Your task to perform on an android device: turn notification dots on Image 0: 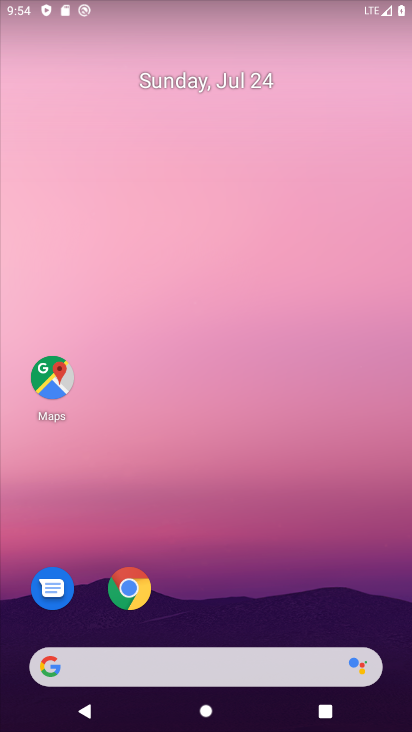
Step 0: drag from (281, 706) to (276, 7)
Your task to perform on an android device: turn notification dots on Image 1: 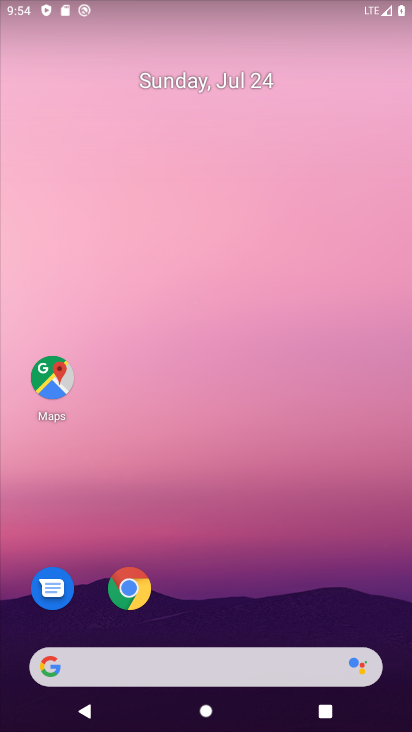
Step 1: drag from (256, 708) to (281, 166)
Your task to perform on an android device: turn notification dots on Image 2: 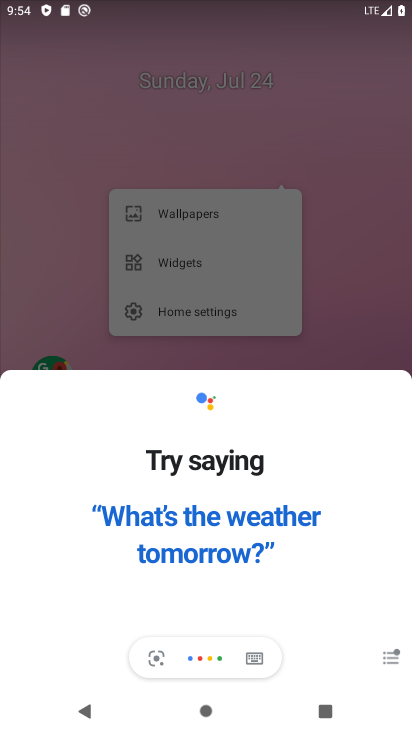
Step 2: press home button
Your task to perform on an android device: turn notification dots on Image 3: 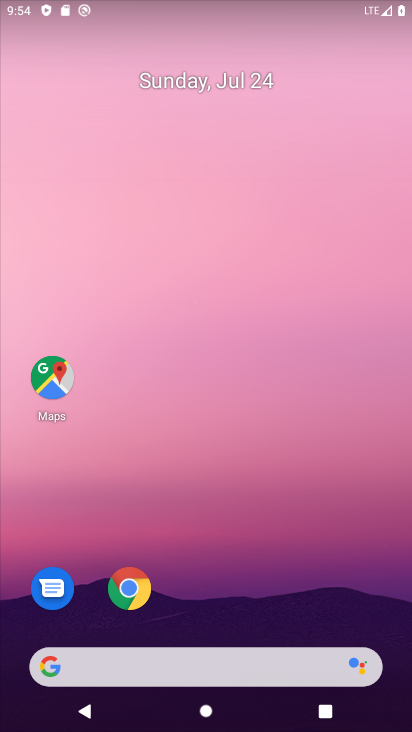
Step 3: drag from (134, 698) to (250, 36)
Your task to perform on an android device: turn notification dots on Image 4: 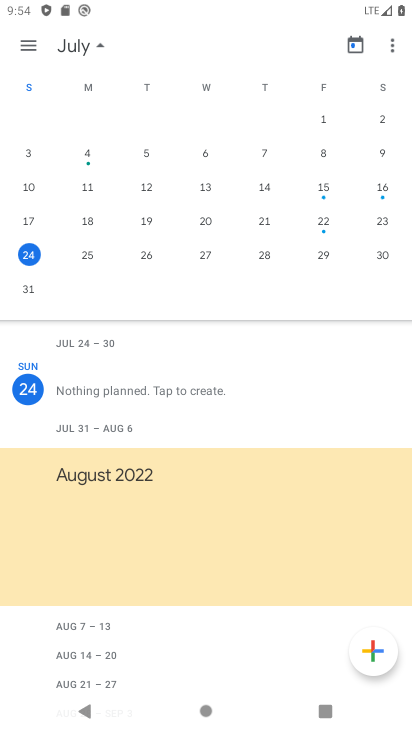
Step 4: press home button
Your task to perform on an android device: turn notification dots on Image 5: 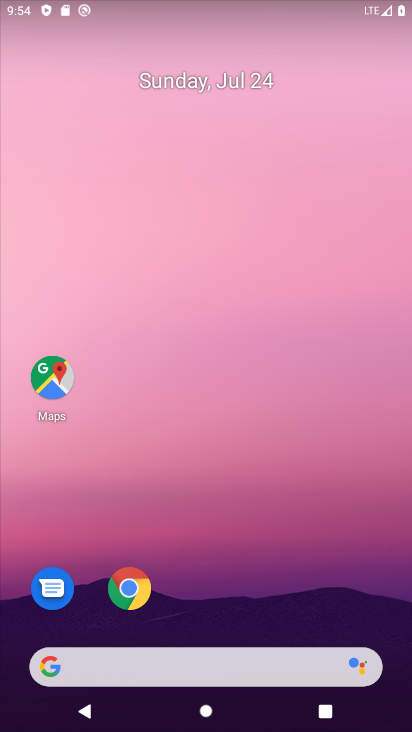
Step 5: drag from (254, 693) to (326, 12)
Your task to perform on an android device: turn notification dots on Image 6: 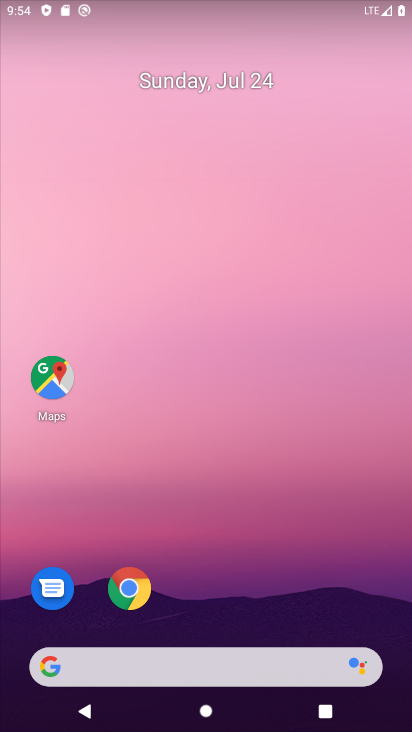
Step 6: drag from (257, 698) to (285, 48)
Your task to perform on an android device: turn notification dots on Image 7: 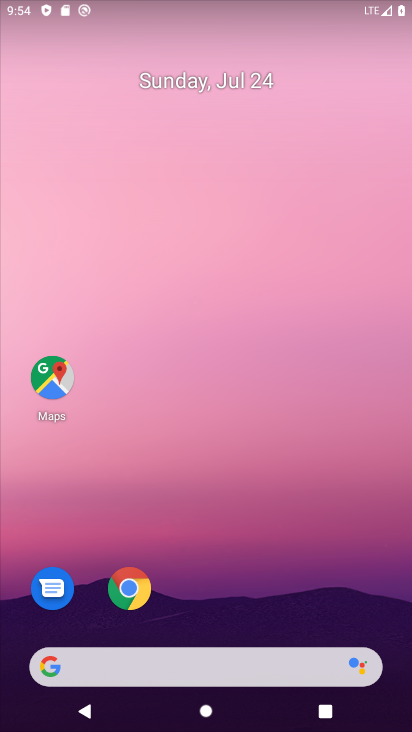
Step 7: drag from (140, 696) to (202, 61)
Your task to perform on an android device: turn notification dots on Image 8: 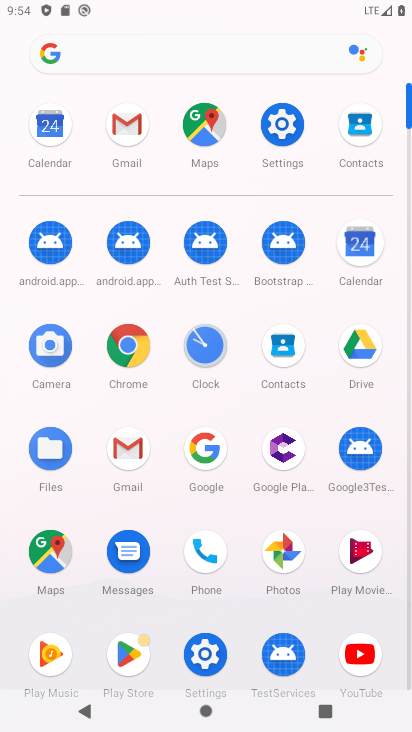
Step 8: click (275, 132)
Your task to perform on an android device: turn notification dots on Image 9: 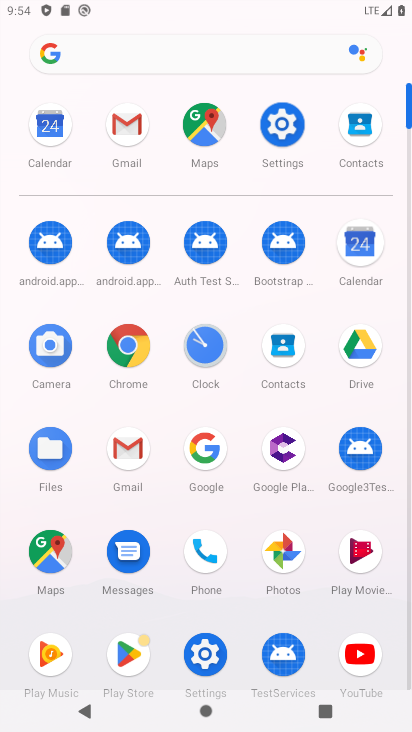
Step 9: click (275, 132)
Your task to perform on an android device: turn notification dots on Image 10: 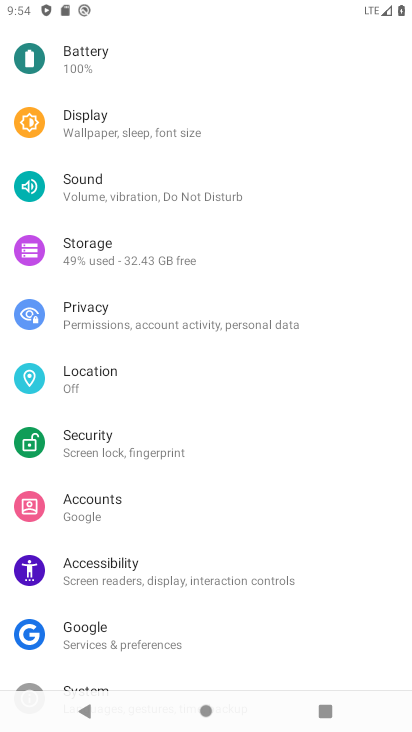
Step 10: drag from (165, 123) to (164, 730)
Your task to perform on an android device: turn notification dots on Image 11: 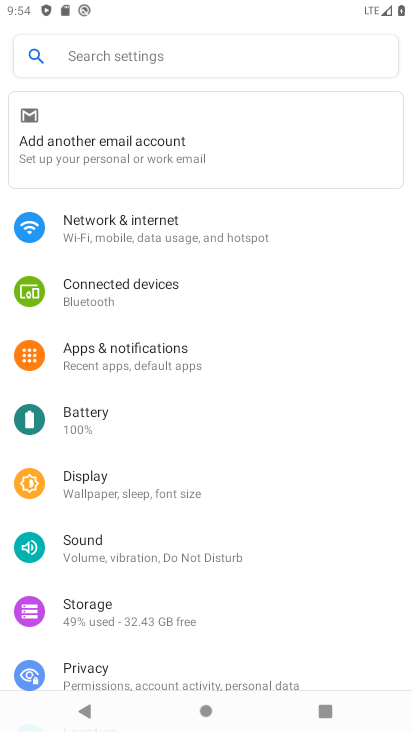
Step 11: click (198, 357)
Your task to perform on an android device: turn notification dots on Image 12: 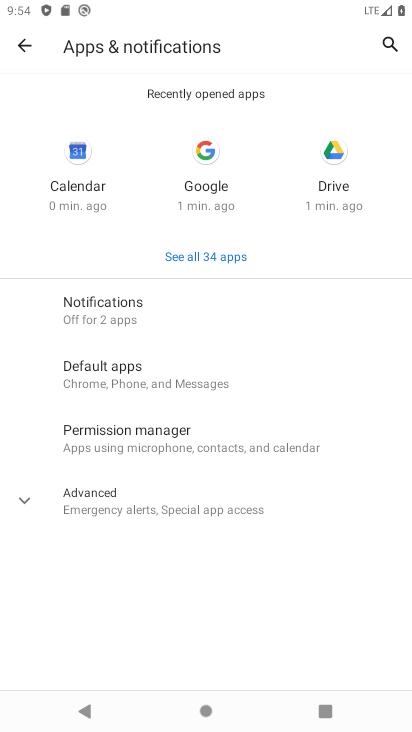
Step 12: click (165, 313)
Your task to perform on an android device: turn notification dots on Image 13: 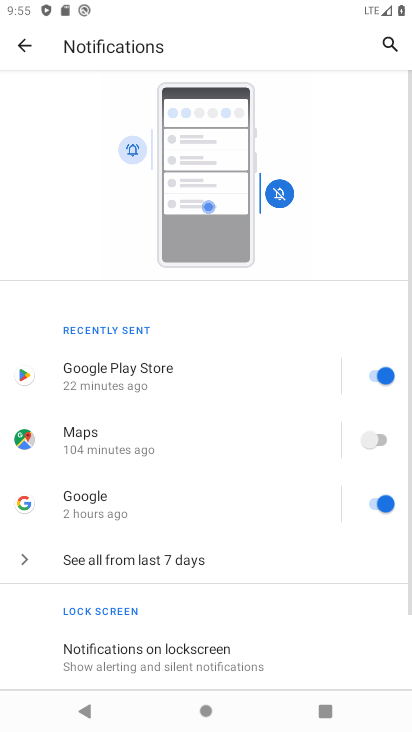
Step 13: drag from (201, 622) to (209, 100)
Your task to perform on an android device: turn notification dots on Image 14: 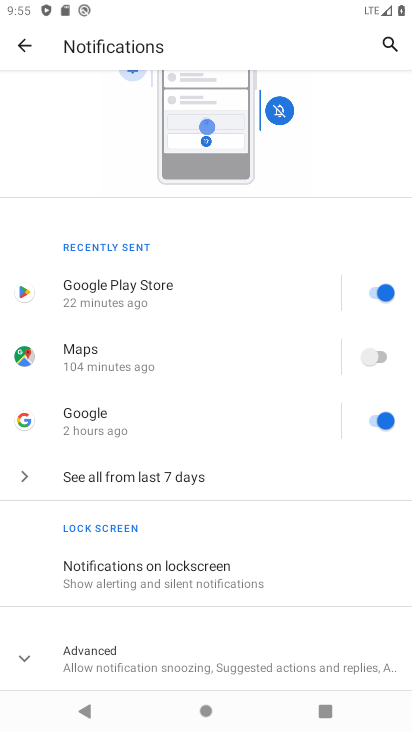
Step 14: click (268, 667)
Your task to perform on an android device: turn notification dots on Image 15: 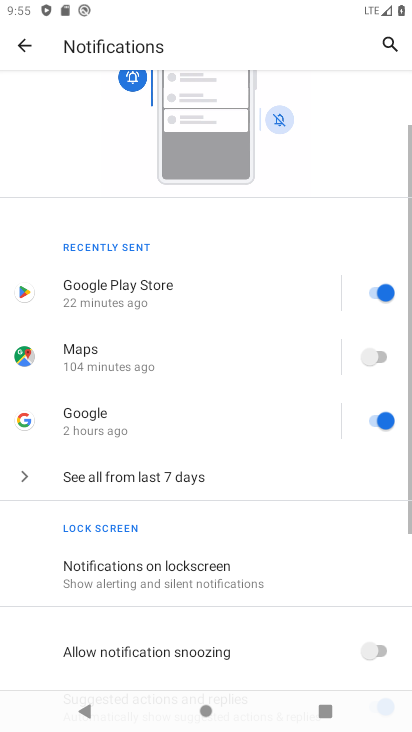
Step 15: task complete